Your task to perform on an android device: change timer sound Image 0: 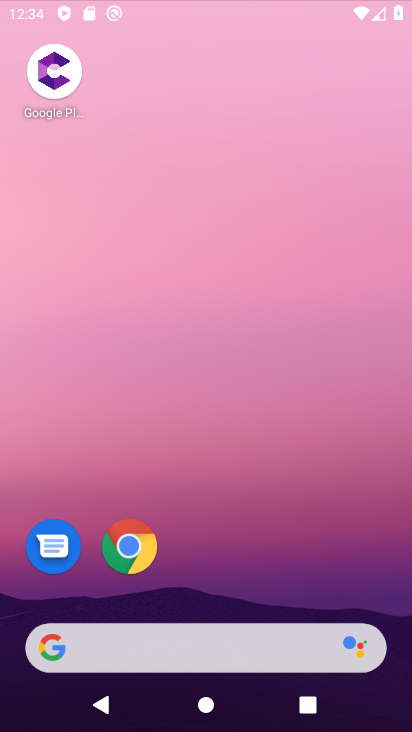
Step 0: click (142, 552)
Your task to perform on an android device: change timer sound Image 1: 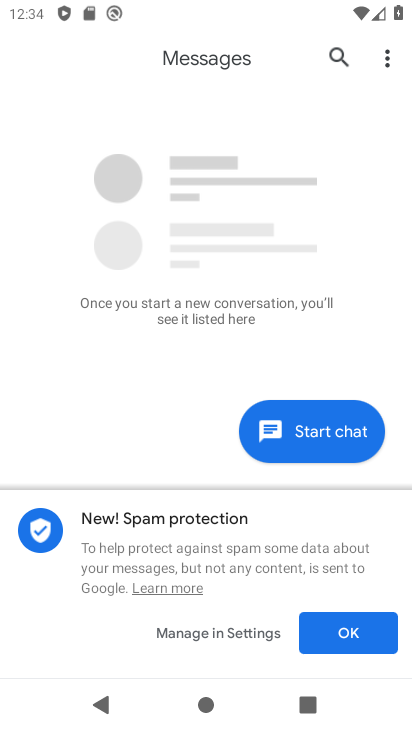
Step 1: press home button
Your task to perform on an android device: change timer sound Image 2: 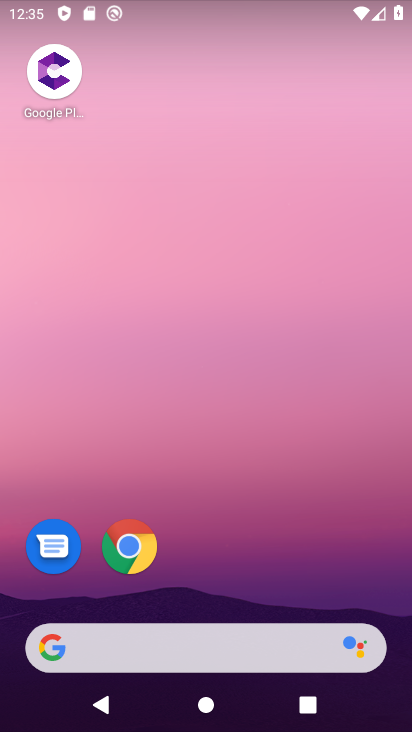
Step 2: drag from (263, 469) to (263, 193)
Your task to perform on an android device: change timer sound Image 3: 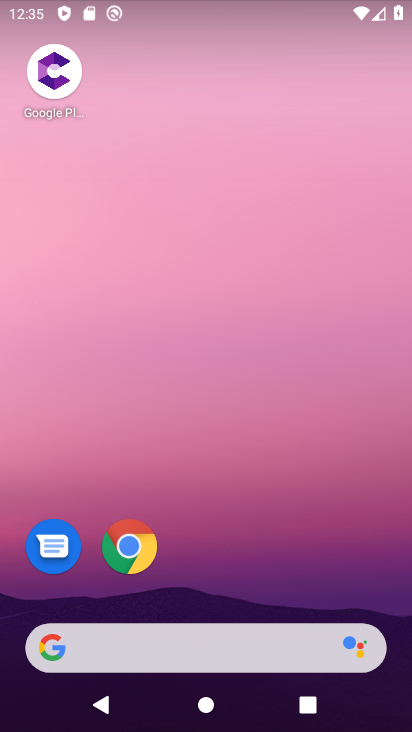
Step 3: drag from (288, 545) to (287, 157)
Your task to perform on an android device: change timer sound Image 4: 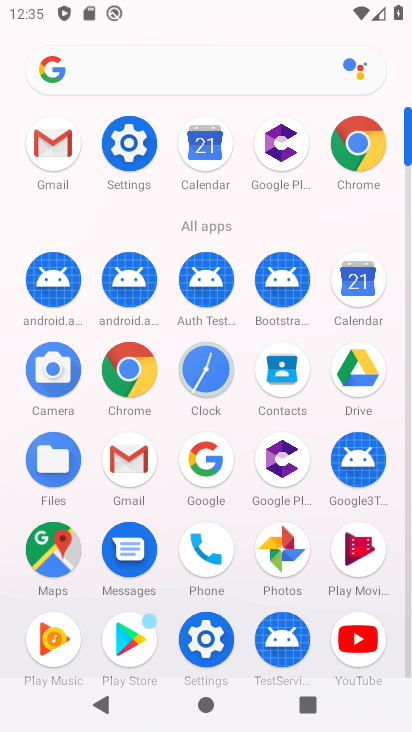
Step 4: click (203, 363)
Your task to perform on an android device: change timer sound Image 5: 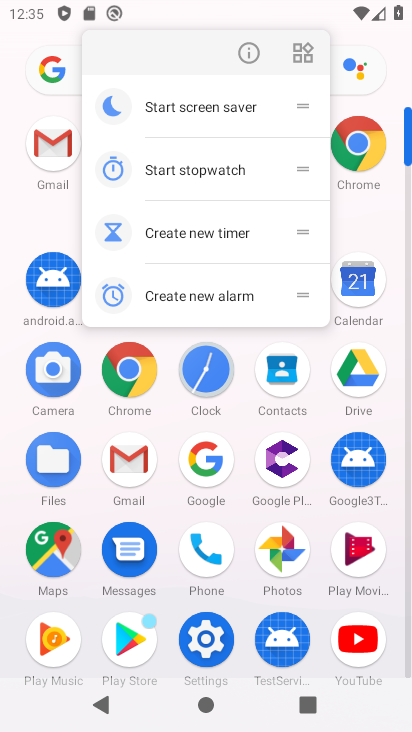
Step 5: click (200, 387)
Your task to perform on an android device: change timer sound Image 6: 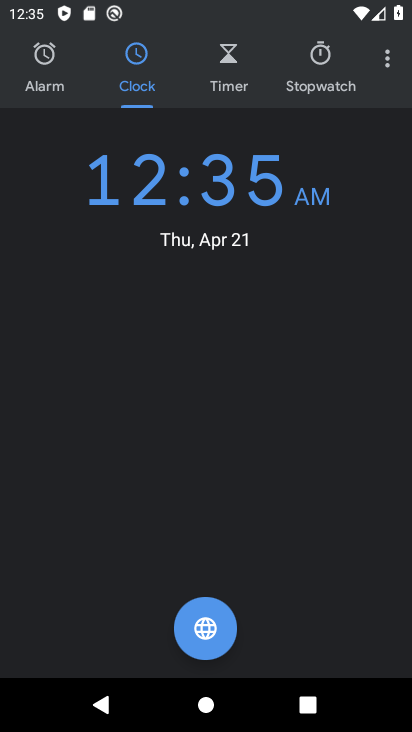
Step 6: click (384, 72)
Your task to perform on an android device: change timer sound Image 7: 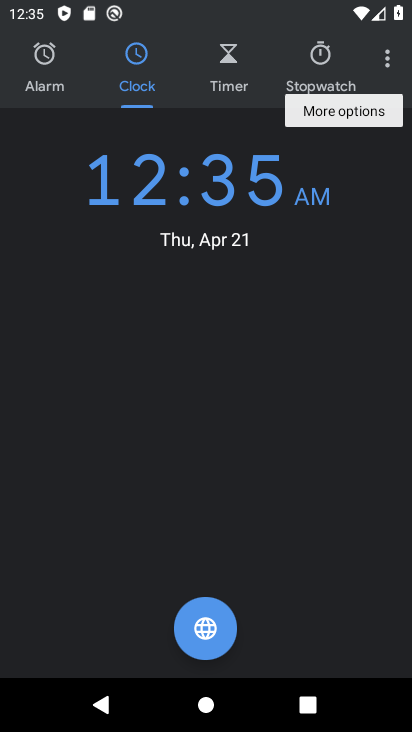
Step 7: click (387, 64)
Your task to perform on an android device: change timer sound Image 8: 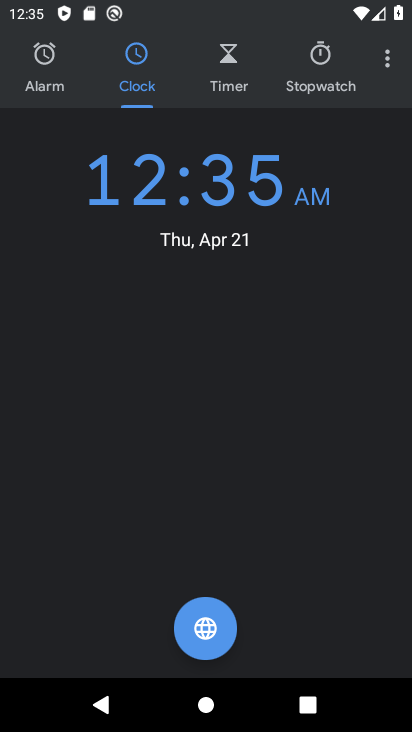
Step 8: click (386, 61)
Your task to perform on an android device: change timer sound Image 9: 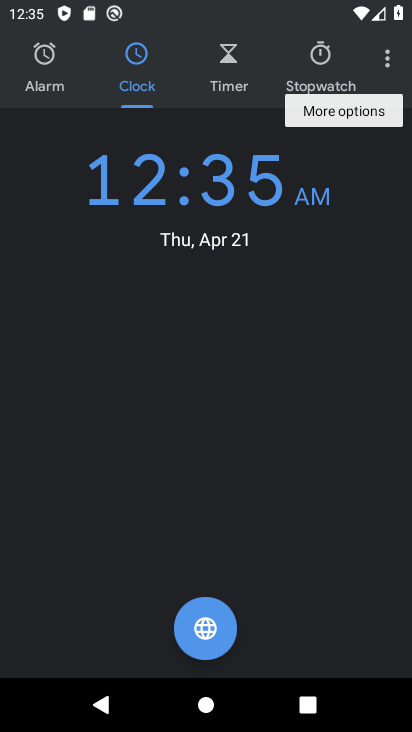
Step 9: click (391, 57)
Your task to perform on an android device: change timer sound Image 10: 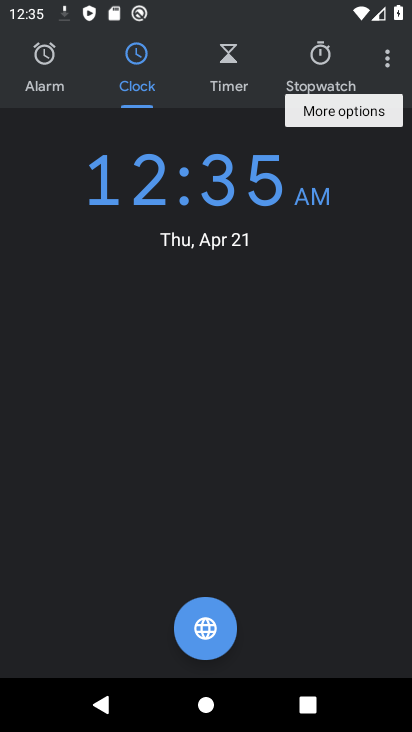
Step 10: click (391, 70)
Your task to perform on an android device: change timer sound Image 11: 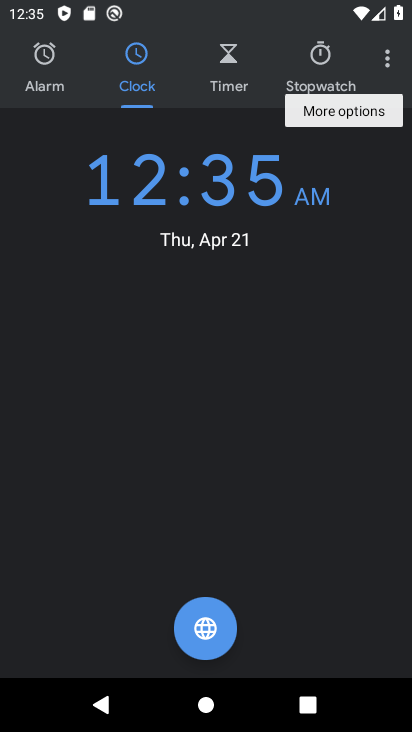
Step 11: click (391, 70)
Your task to perform on an android device: change timer sound Image 12: 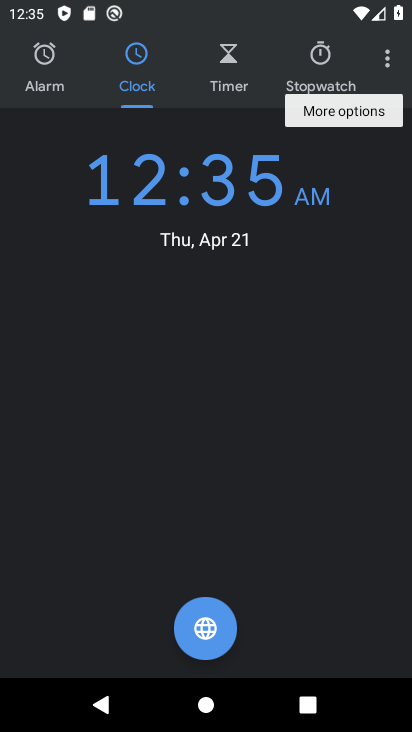
Step 12: click (391, 70)
Your task to perform on an android device: change timer sound Image 13: 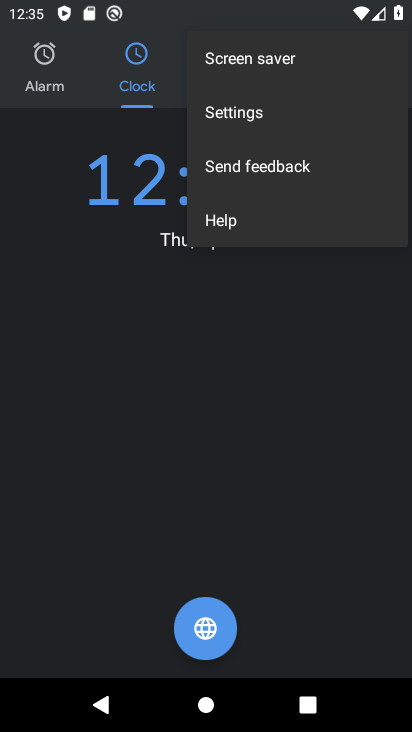
Step 13: click (276, 109)
Your task to perform on an android device: change timer sound Image 14: 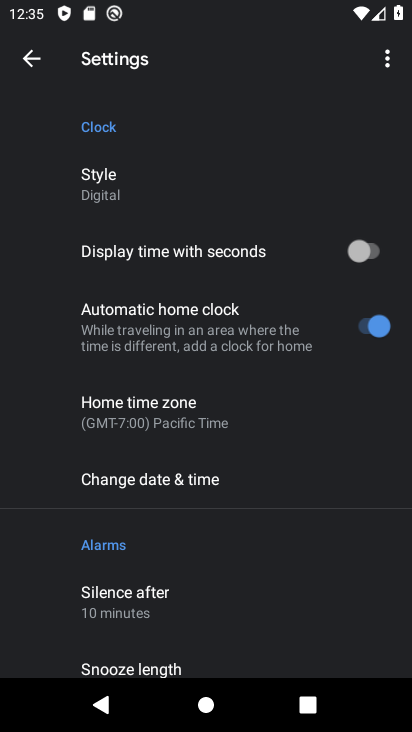
Step 14: drag from (189, 581) to (184, 300)
Your task to perform on an android device: change timer sound Image 15: 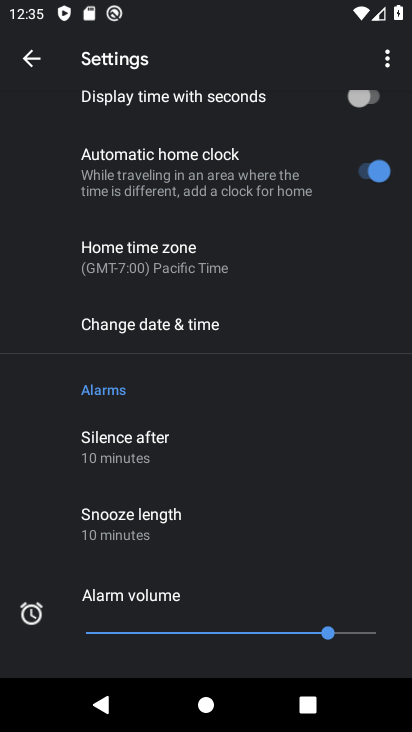
Step 15: drag from (195, 560) to (216, 258)
Your task to perform on an android device: change timer sound Image 16: 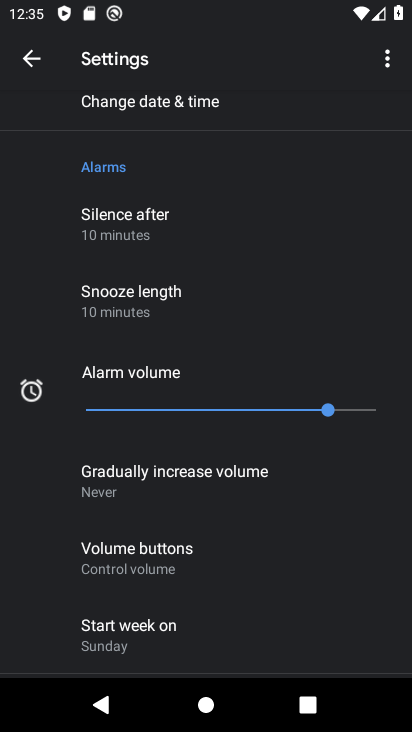
Step 16: drag from (204, 582) to (189, 250)
Your task to perform on an android device: change timer sound Image 17: 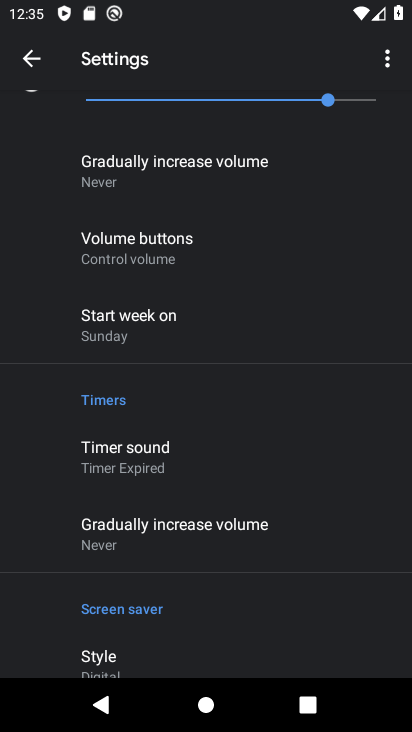
Step 17: click (181, 468)
Your task to perform on an android device: change timer sound Image 18: 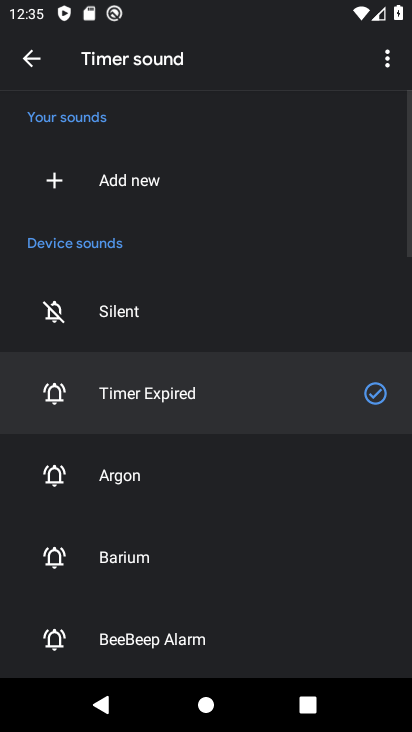
Step 18: click (232, 478)
Your task to perform on an android device: change timer sound Image 19: 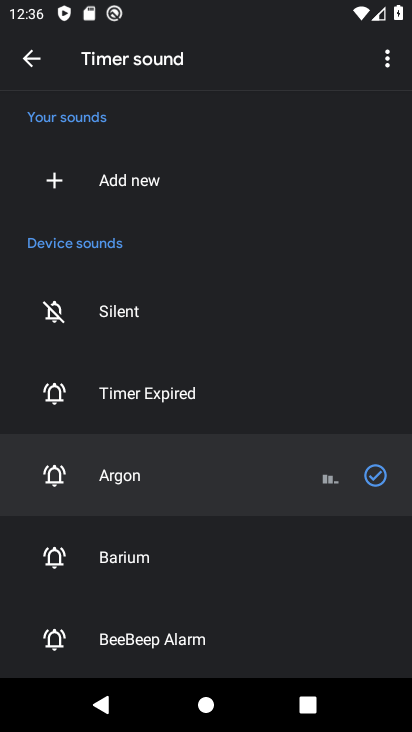
Step 19: task complete